Your task to perform on an android device: add a label to a message in the gmail app Image 0: 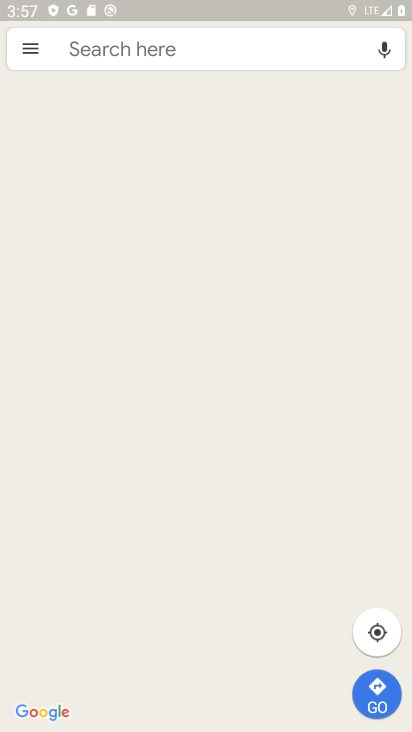
Step 0: press back button
Your task to perform on an android device: add a label to a message in the gmail app Image 1: 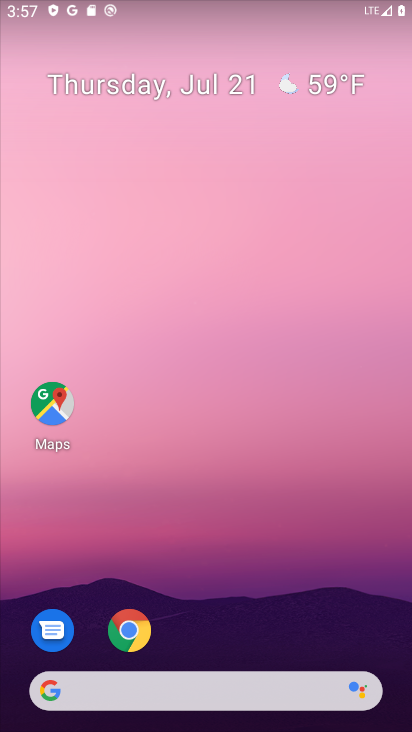
Step 1: drag from (209, 587) to (209, 48)
Your task to perform on an android device: add a label to a message in the gmail app Image 2: 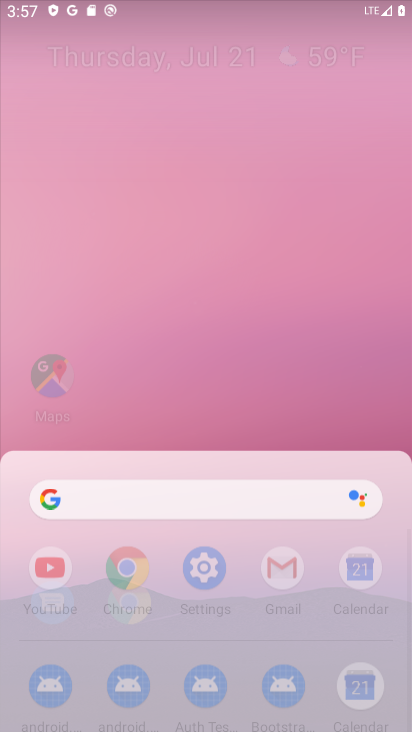
Step 2: drag from (238, 411) to (245, 110)
Your task to perform on an android device: add a label to a message in the gmail app Image 3: 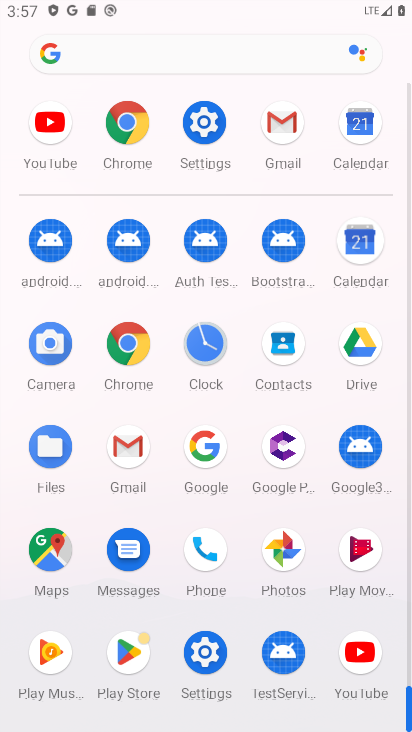
Step 3: click (124, 437)
Your task to perform on an android device: add a label to a message in the gmail app Image 4: 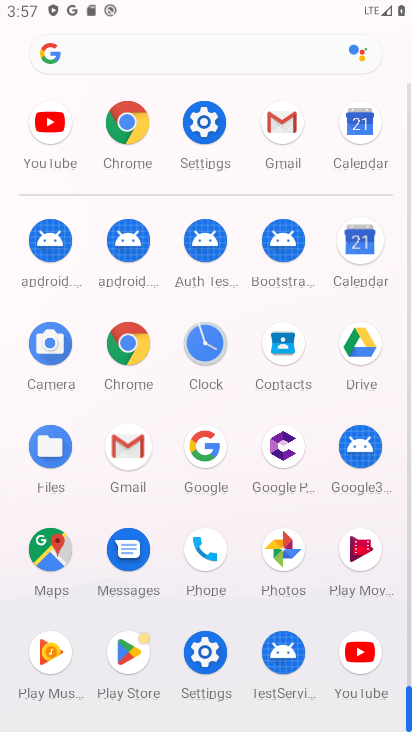
Step 4: click (127, 432)
Your task to perform on an android device: add a label to a message in the gmail app Image 5: 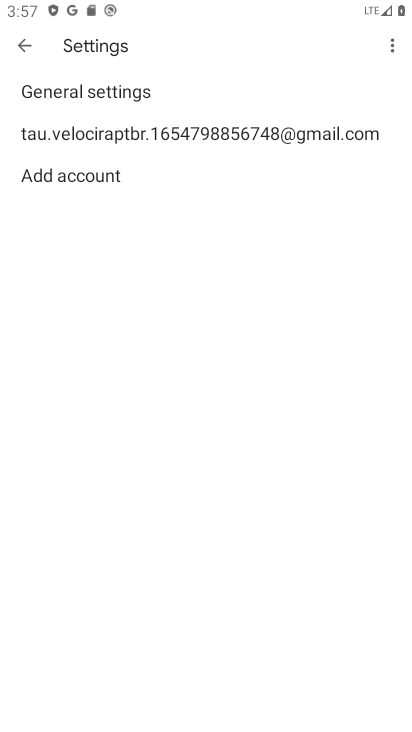
Step 5: click (127, 429)
Your task to perform on an android device: add a label to a message in the gmail app Image 6: 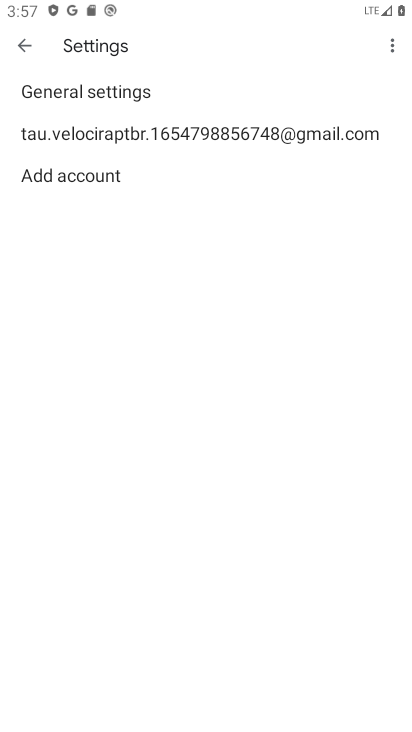
Step 6: click (105, 137)
Your task to perform on an android device: add a label to a message in the gmail app Image 7: 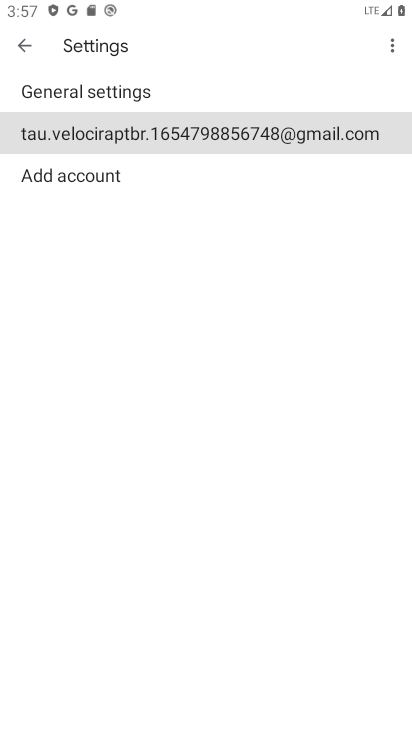
Step 7: click (106, 136)
Your task to perform on an android device: add a label to a message in the gmail app Image 8: 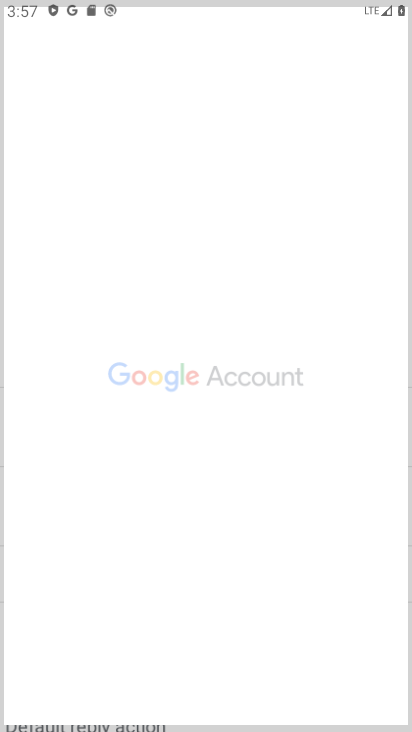
Step 8: click (16, 48)
Your task to perform on an android device: add a label to a message in the gmail app Image 9: 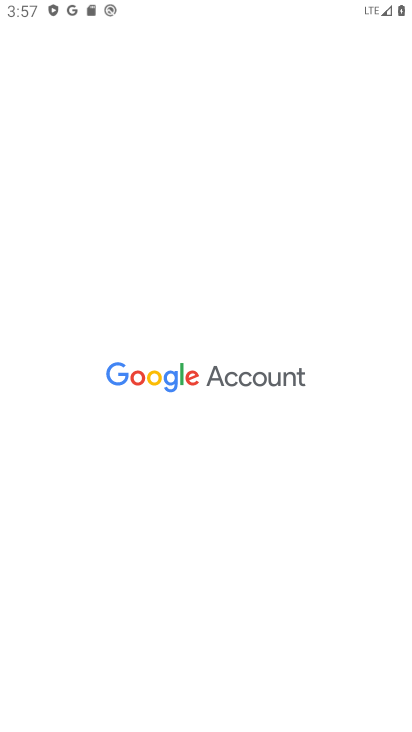
Step 9: click (17, 47)
Your task to perform on an android device: add a label to a message in the gmail app Image 10: 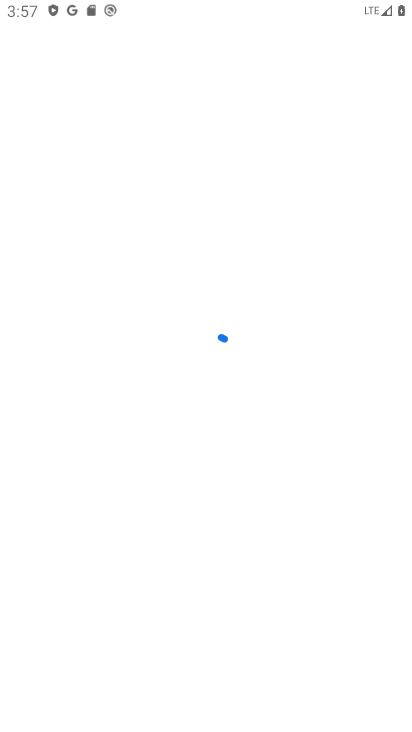
Step 10: click (18, 46)
Your task to perform on an android device: add a label to a message in the gmail app Image 11: 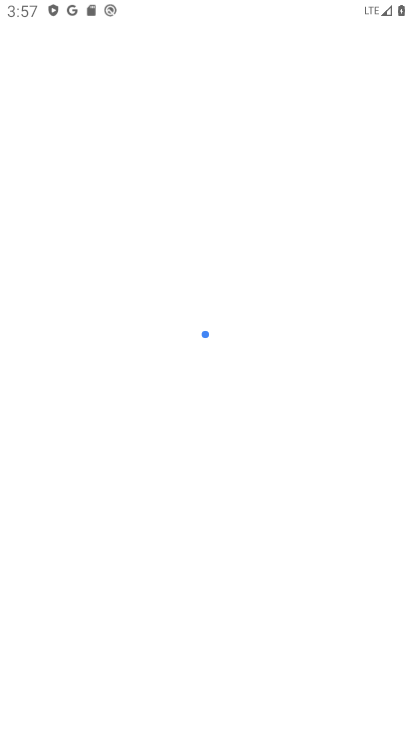
Step 11: press back button
Your task to perform on an android device: add a label to a message in the gmail app Image 12: 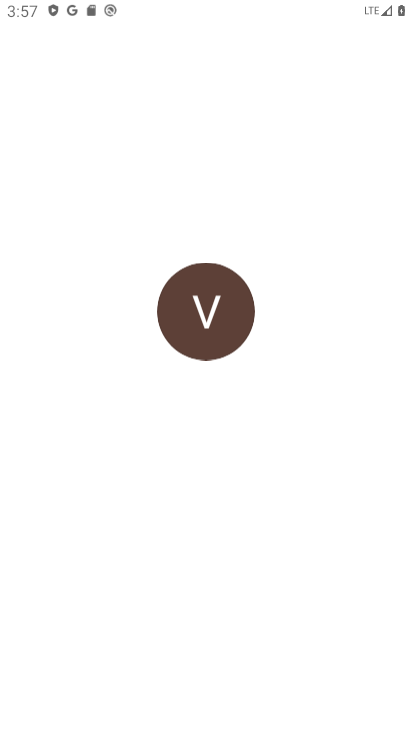
Step 12: press back button
Your task to perform on an android device: add a label to a message in the gmail app Image 13: 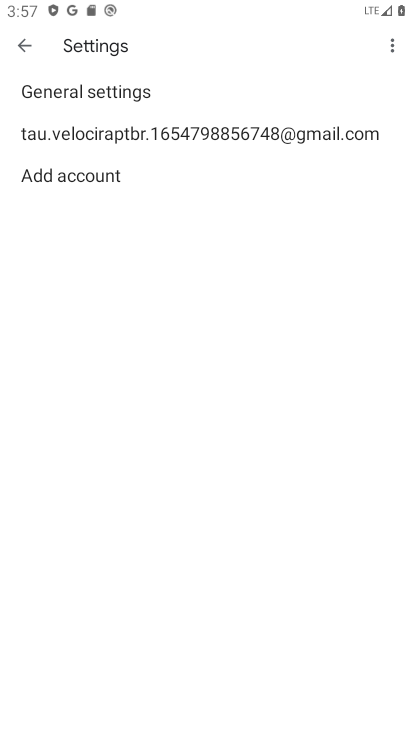
Step 13: click (31, 39)
Your task to perform on an android device: add a label to a message in the gmail app Image 14: 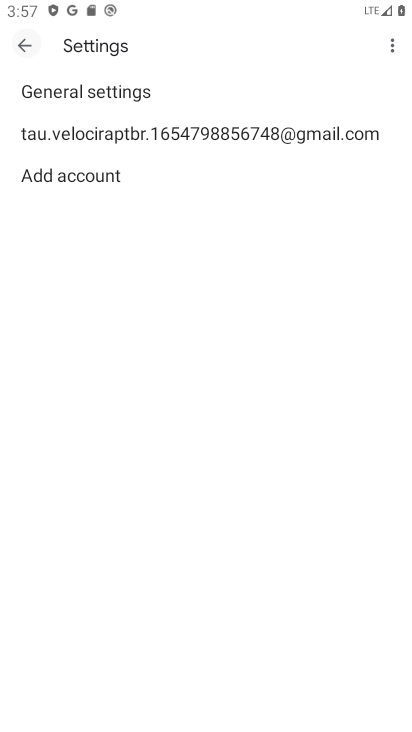
Step 14: click (31, 39)
Your task to perform on an android device: add a label to a message in the gmail app Image 15: 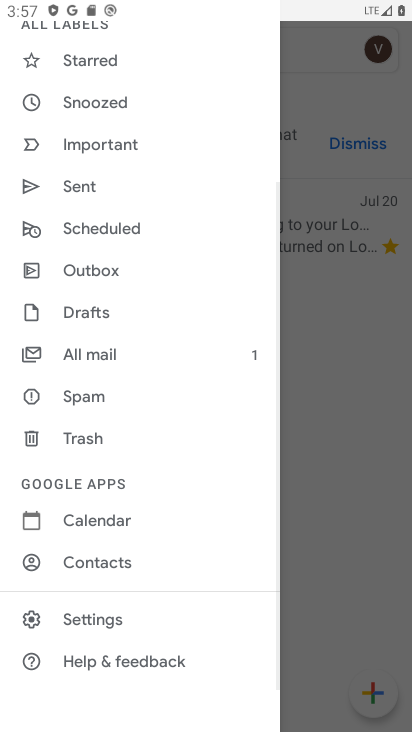
Step 15: click (96, 353)
Your task to perform on an android device: add a label to a message in the gmail app Image 16: 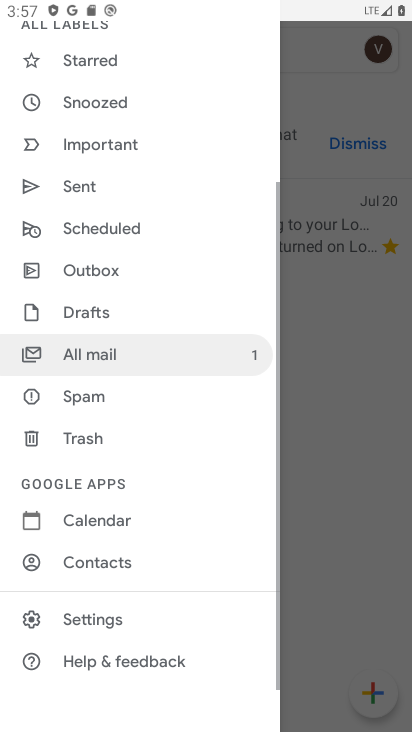
Step 16: click (95, 352)
Your task to perform on an android device: add a label to a message in the gmail app Image 17: 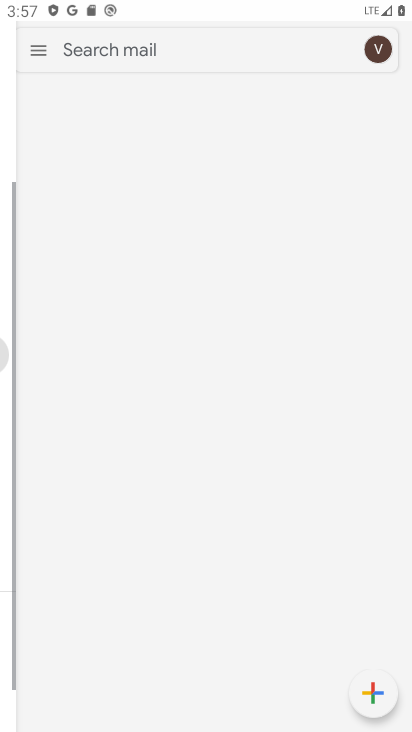
Step 17: click (95, 352)
Your task to perform on an android device: add a label to a message in the gmail app Image 18: 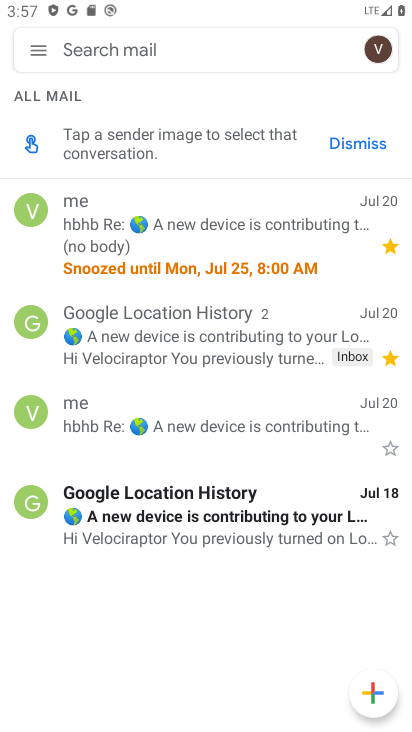
Step 18: click (227, 503)
Your task to perform on an android device: add a label to a message in the gmail app Image 19: 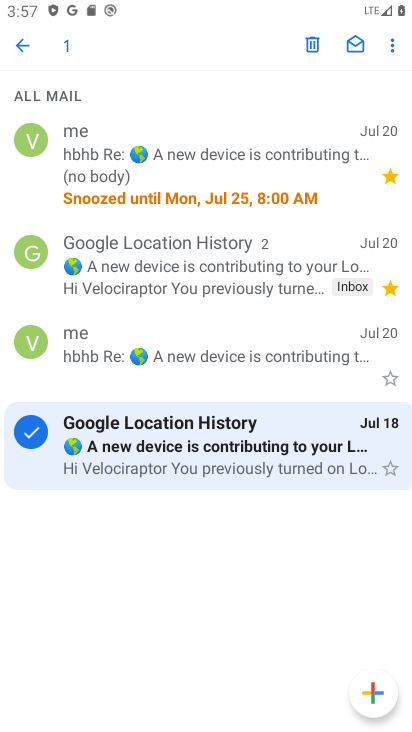
Step 19: click (393, 39)
Your task to perform on an android device: add a label to a message in the gmail app Image 20: 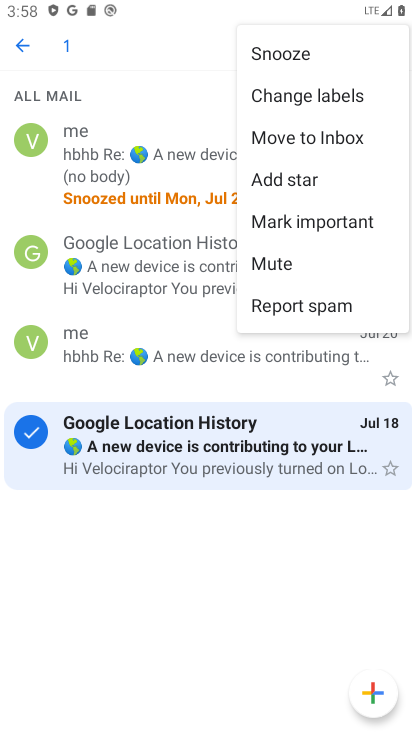
Step 20: click (289, 97)
Your task to perform on an android device: add a label to a message in the gmail app Image 21: 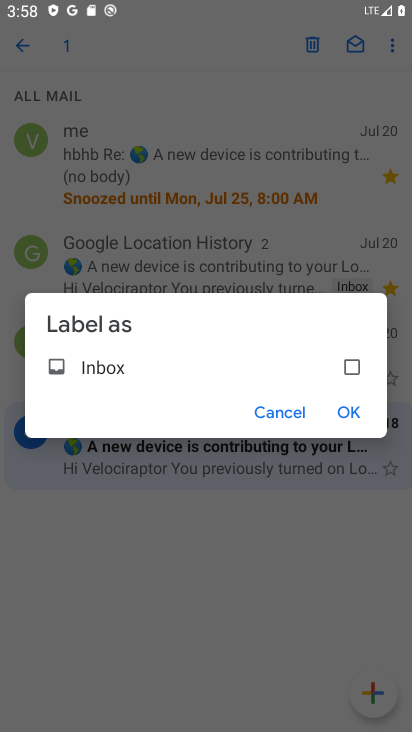
Step 21: click (337, 409)
Your task to perform on an android device: add a label to a message in the gmail app Image 22: 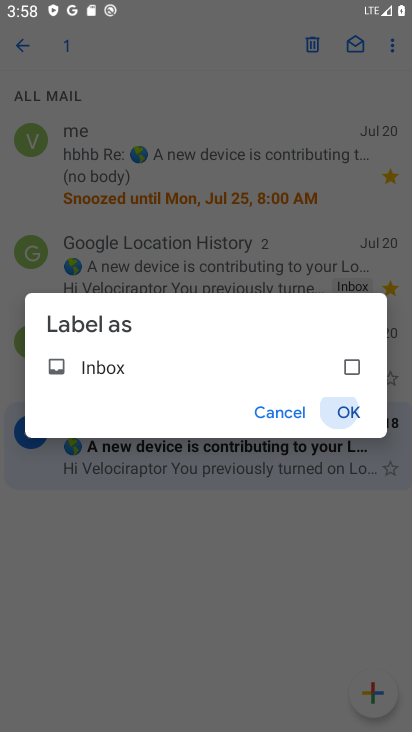
Step 22: click (338, 410)
Your task to perform on an android device: add a label to a message in the gmail app Image 23: 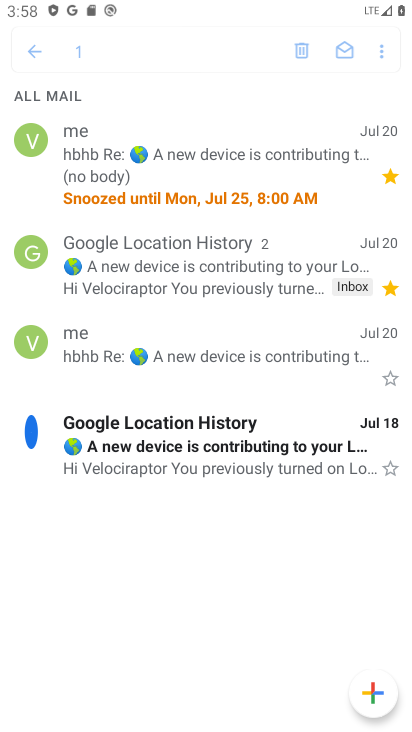
Step 23: click (339, 410)
Your task to perform on an android device: add a label to a message in the gmail app Image 24: 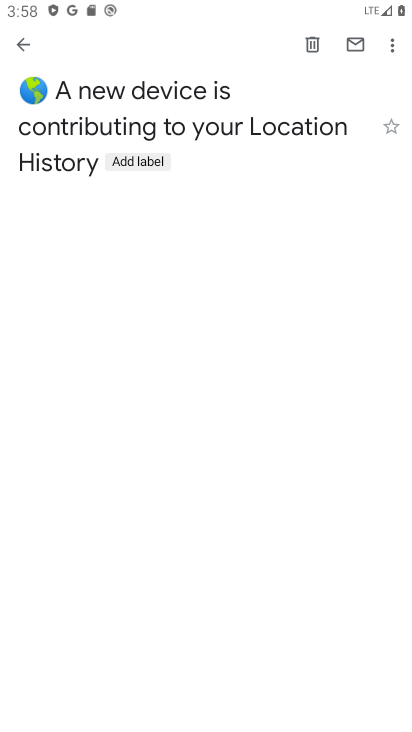
Step 24: task complete